Your task to perform on an android device: Turn on the flashlight Image 0: 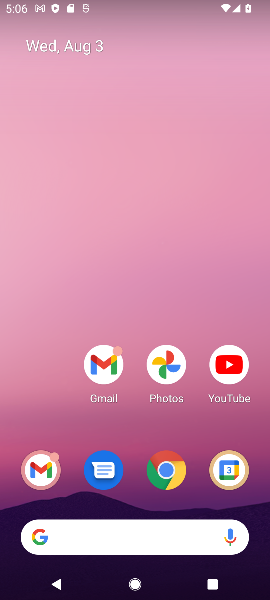
Step 0: drag from (52, 397) to (88, 93)
Your task to perform on an android device: Turn on the flashlight Image 1: 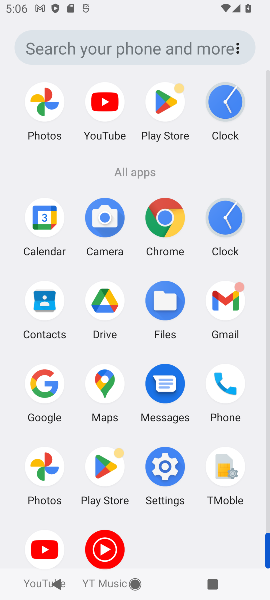
Step 1: click (179, 465)
Your task to perform on an android device: Turn on the flashlight Image 2: 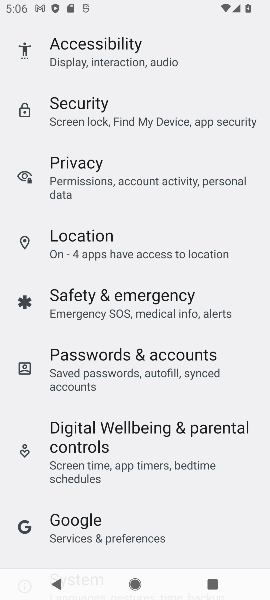
Step 2: drag from (174, 93) to (119, 508)
Your task to perform on an android device: Turn on the flashlight Image 3: 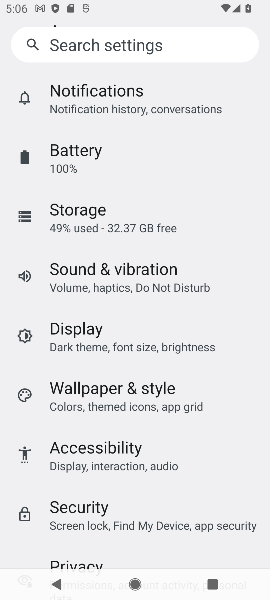
Step 3: drag from (170, 148) to (141, 502)
Your task to perform on an android device: Turn on the flashlight Image 4: 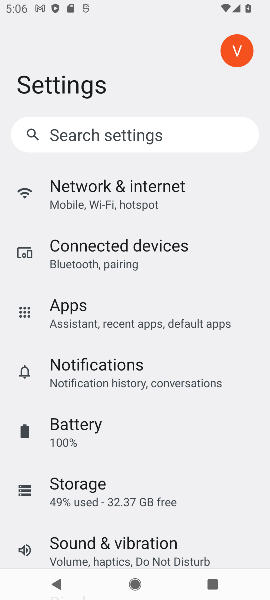
Step 4: drag from (165, 447) to (197, 243)
Your task to perform on an android device: Turn on the flashlight Image 5: 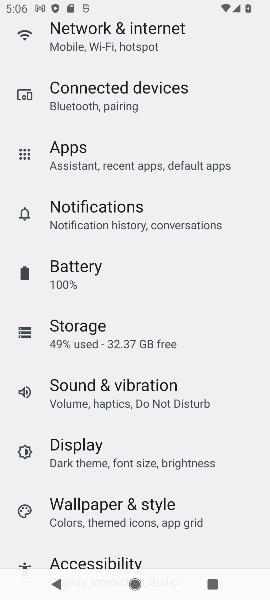
Step 5: click (97, 446)
Your task to perform on an android device: Turn on the flashlight Image 6: 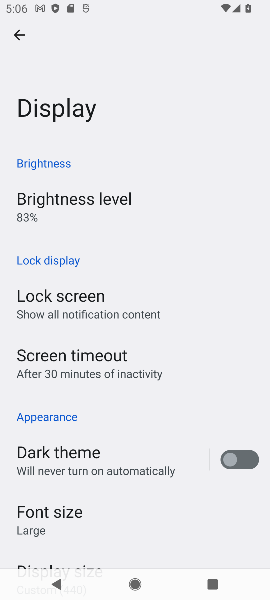
Step 6: drag from (122, 546) to (174, 483)
Your task to perform on an android device: Turn on the flashlight Image 7: 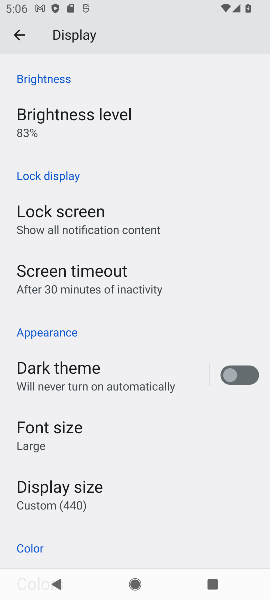
Step 7: click (111, 294)
Your task to perform on an android device: Turn on the flashlight Image 8: 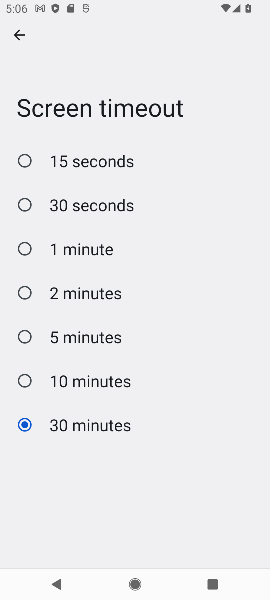
Step 8: task complete